Your task to perform on an android device: Show me productivity apps on the Play Store Image 0: 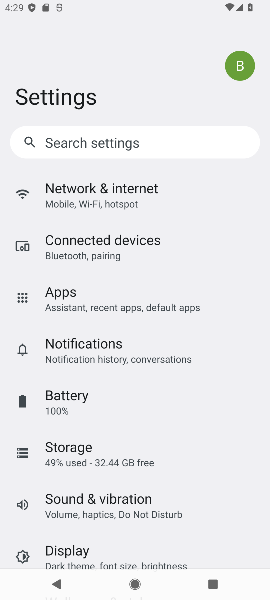
Step 0: press home button
Your task to perform on an android device: Show me productivity apps on the Play Store Image 1: 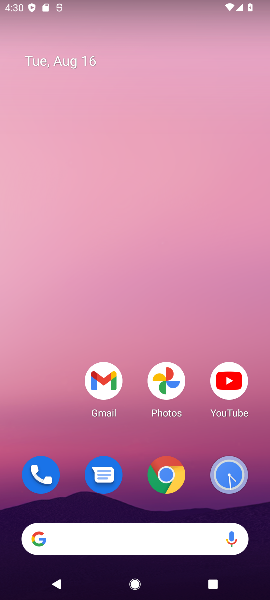
Step 1: drag from (202, 492) to (117, 4)
Your task to perform on an android device: Show me productivity apps on the Play Store Image 2: 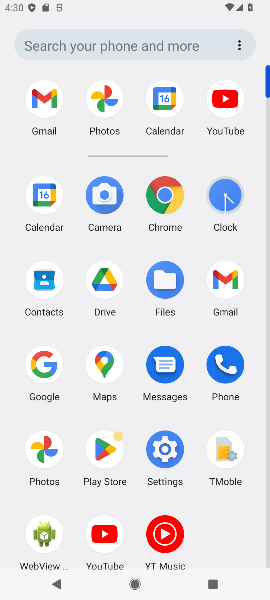
Step 2: click (100, 445)
Your task to perform on an android device: Show me productivity apps on the Play Store Image 3: 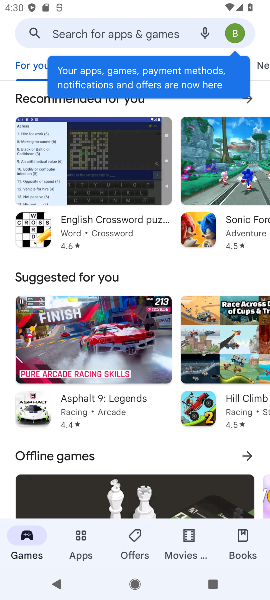
Step 3: task complete